Your task to perform on an android device: Open accessibility settings Image 0: 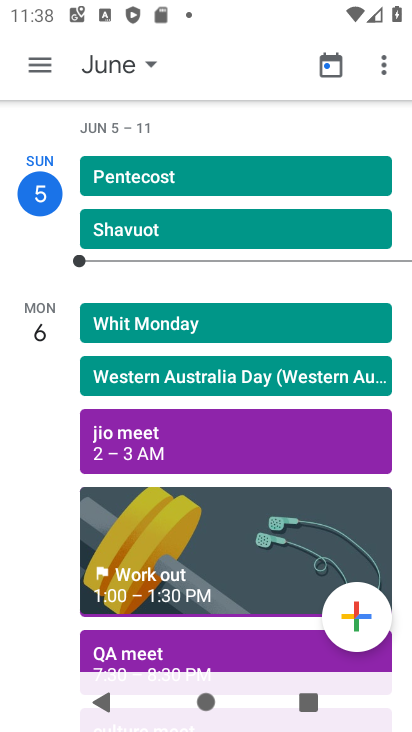
Step 0: press home button
Your task to perform on an android device: Open accessibility settings Image 1: 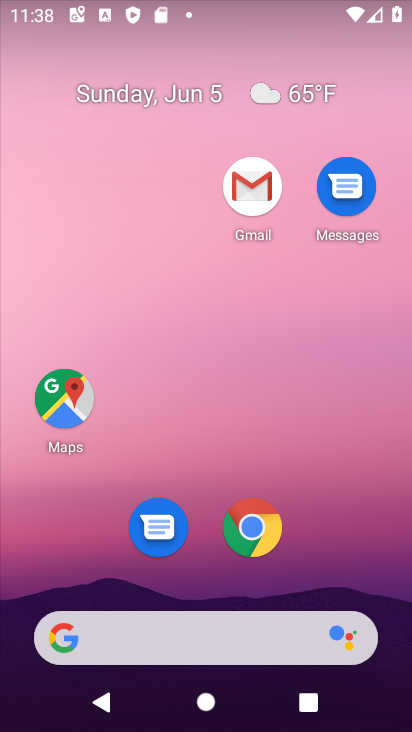
Step 1: drag from (355, 502) to (247, 5)
Your task to perform on an android device: Open accessibility settings Image 2: 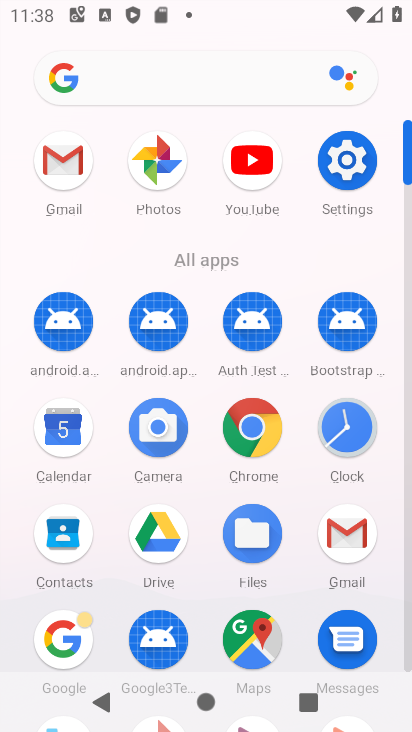
Step 2: click (341, 172)
Your task to perform on an android device: Open accessibility settings Image 3: 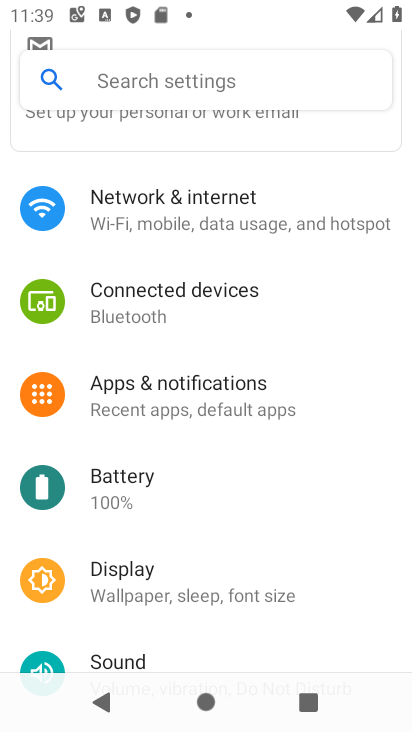
Step 3: drag from (364, 555) to (410, 214)
Your task to perform on an android device: Open accessibility settings Image 4: 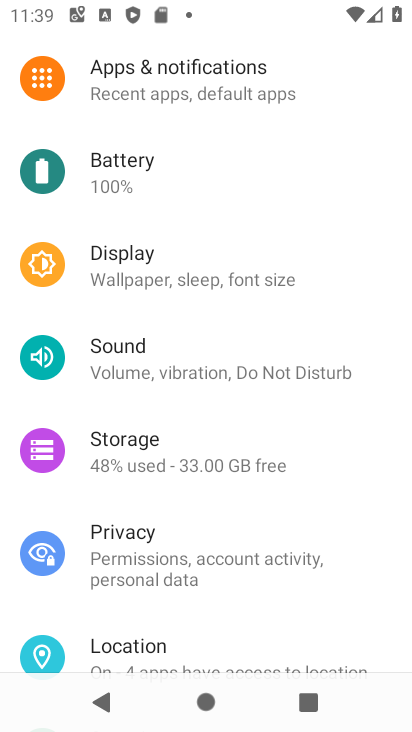
Step 4: drag from (314, 551) to (311, 145)
Your task to perform on an android device: Open accessibility settings Image 5: 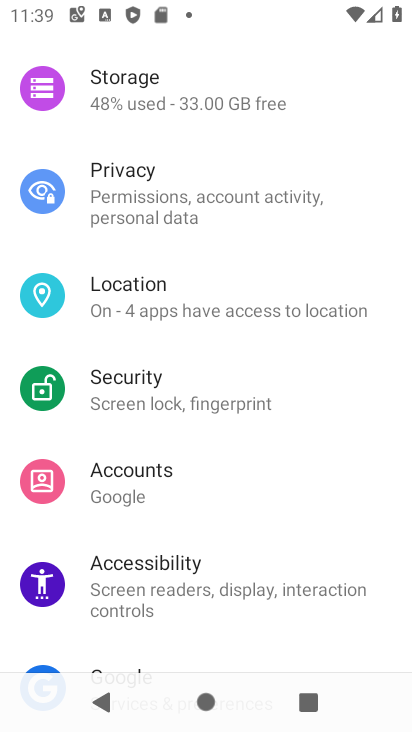
Step 5: drag from (321, 594) to (331, 134)
Your task to perform on an android device: Open accessibility settings Image 6: 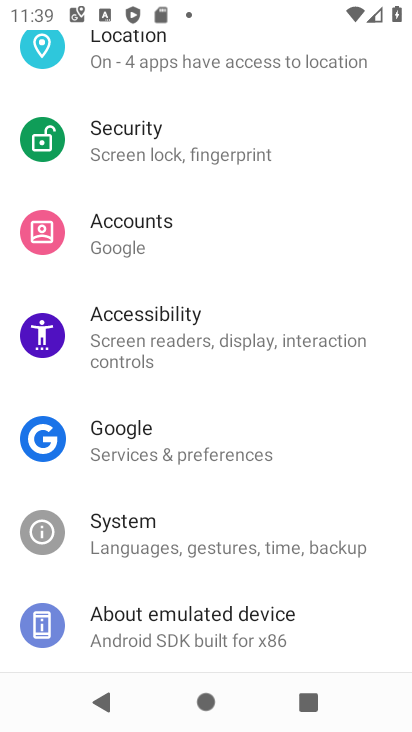
Step 6: click (211, 328)
Your task to perform on an android device: Open accessibility settings Image 7: 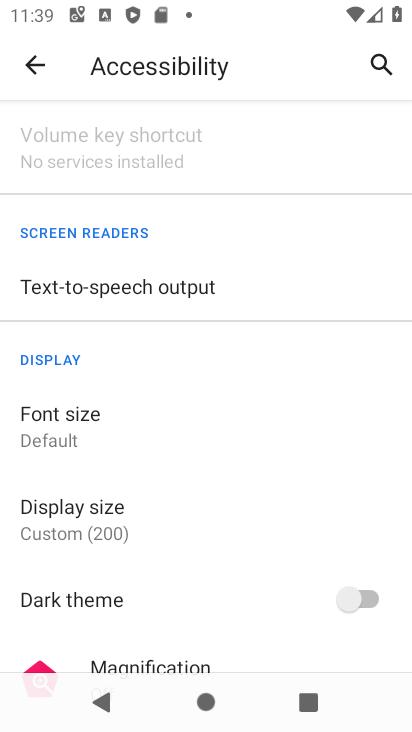
Step 7: task complete